Your task to perform on an android device: open chrome privacy settings Image 0: 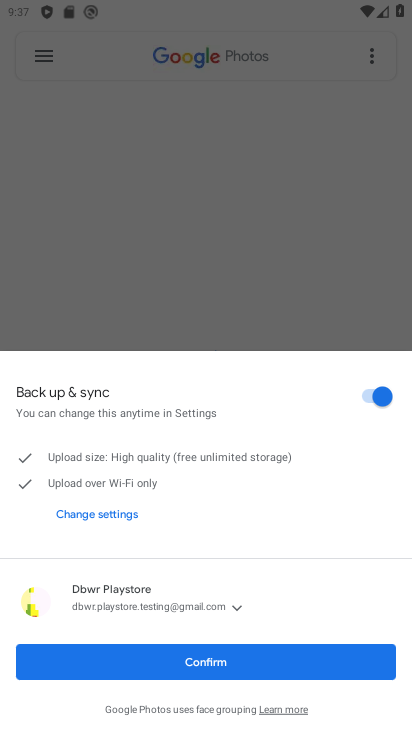
Step 0: click (269, 656)
Your task to perform on an android device: open chrome privacy settings Image 1: 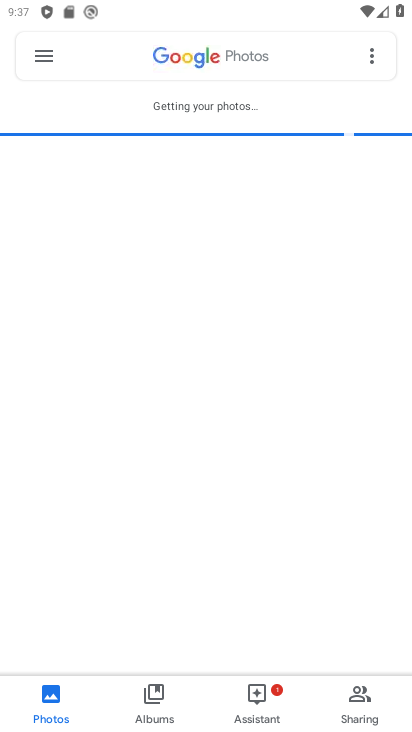
Step 1: press back button
Your task to perform on an android device: open chrome privacy settings Image 2: 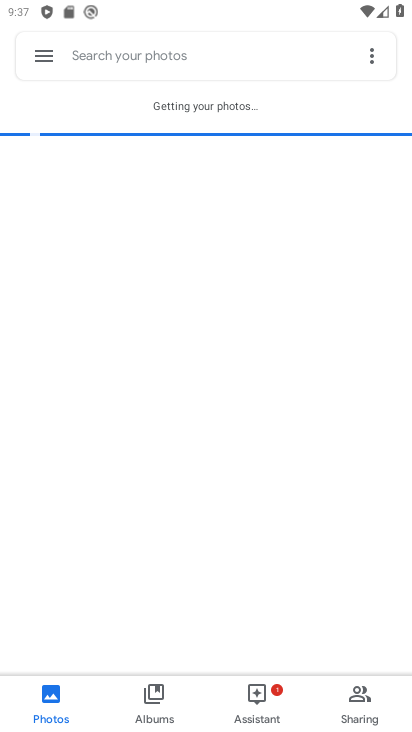
Step 2: press back button
Your task to perform on an android device: open chrome privacy settings Image 3: 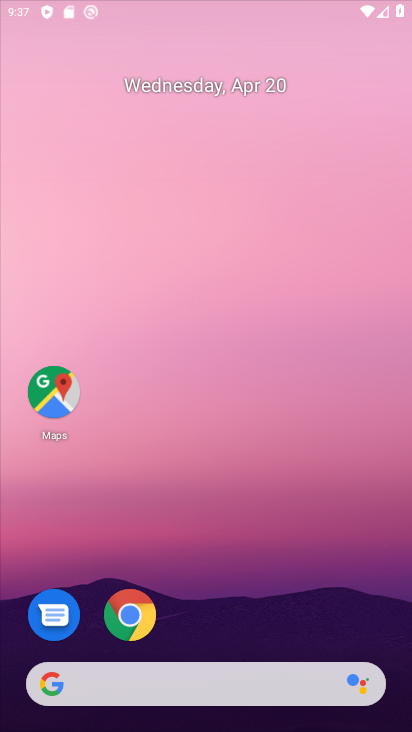
Step 3: press back button
Your task to perform on an android device: open chrome privacy settings Image 4: 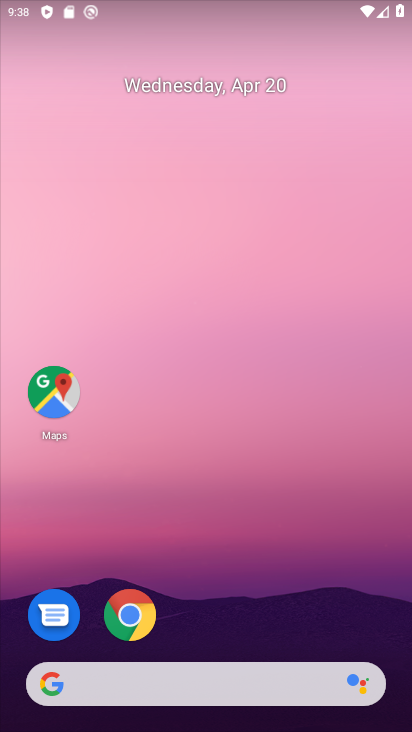
Step 4: drag from (231, 639) to (251, 121)
Your task to perform on an android device: open chrome privacy settings Image 5: 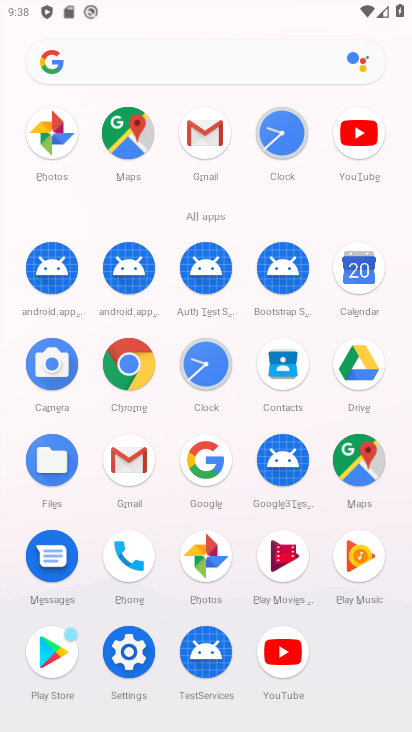
Step 5: click (146, 392)
Your task to perform on an android device: open chrome privacy settings Image 6: 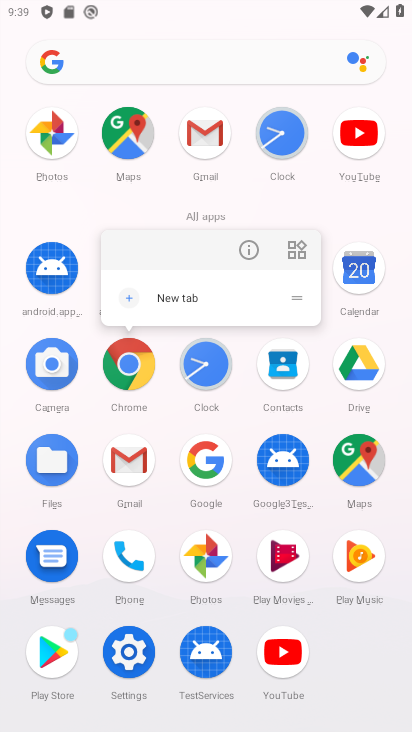
Step 6: click (121, 372)
Your task to perform on an android device: open chrome privacy settings Image 7: 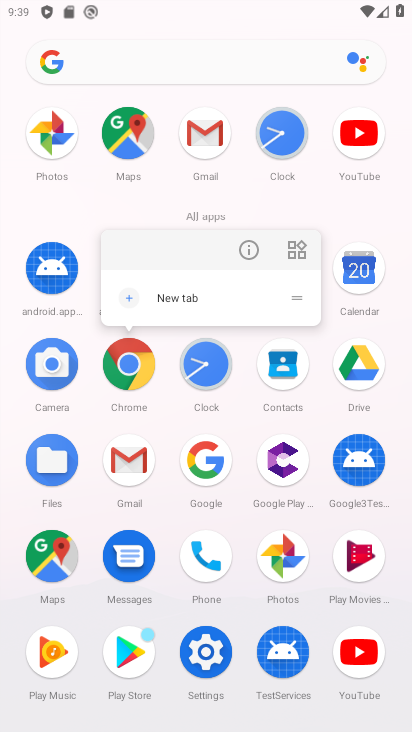
Step 7: click (135, 398)
Your task to perform on an android device: open chrome privacy settings Image 8: 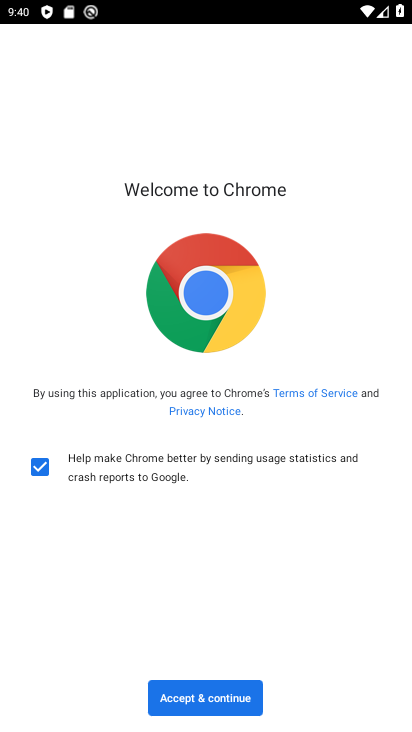
Step 8: click (201, 706)
Your task to perform on an android device: open chrome privacy settings Image 9: 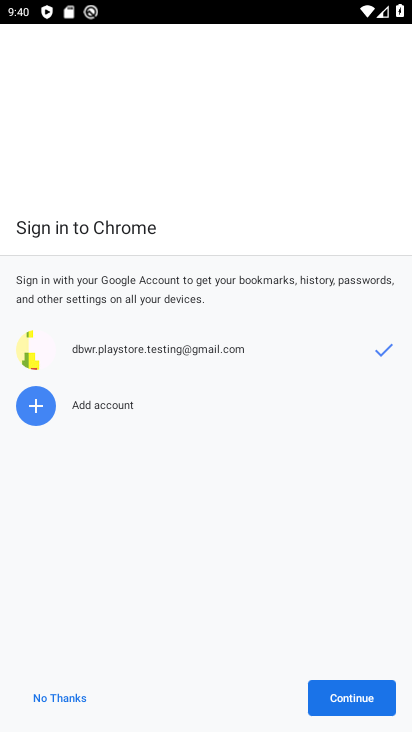
Step 9: click (321, 710)
Your task to perform on an android device: open chrome privacy settings Image 10: 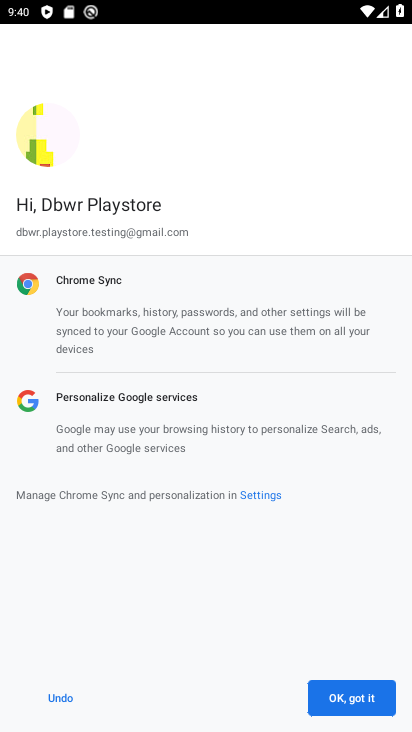
Step 10: click (321, 710)
Your task to perform on an android device: open chrome privacy settings Image 11: 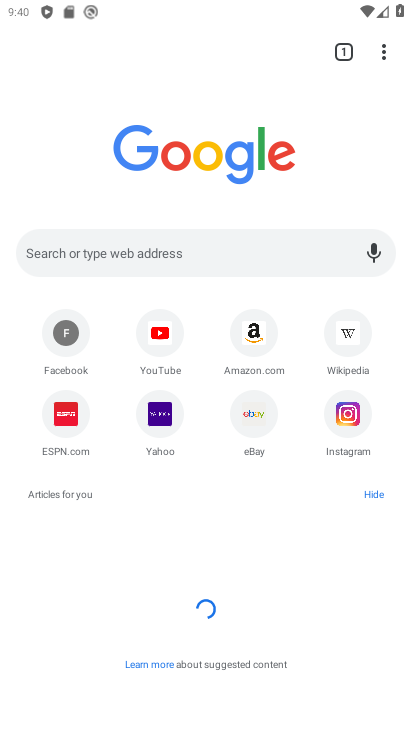
Step 11: click (386, 56)
Your task to perform on an android device: open chrome privacy settings Image 12: 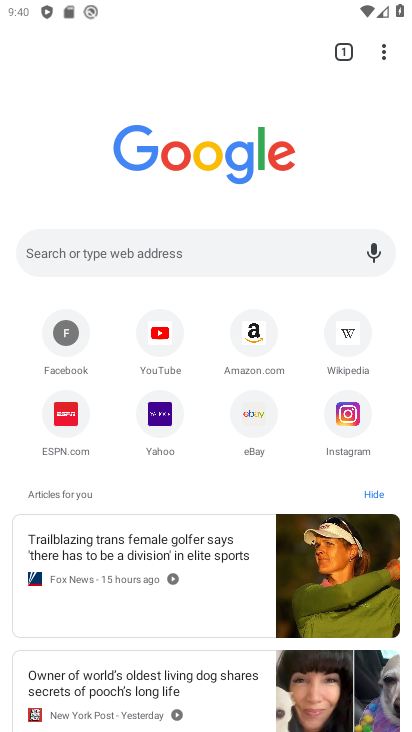
Step 12: click (378, 66)
Your task to perform on an android device: open chrome privacy settings Image 13: 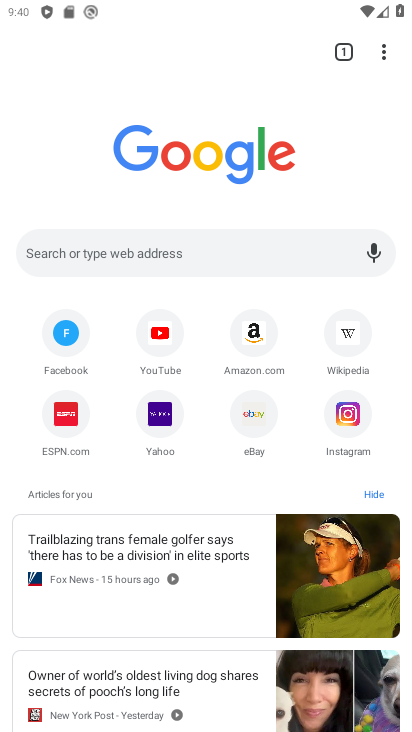
Step 13: click (384, 55)
Your task to perform on an android device: open chrome privacy settings Image 14: 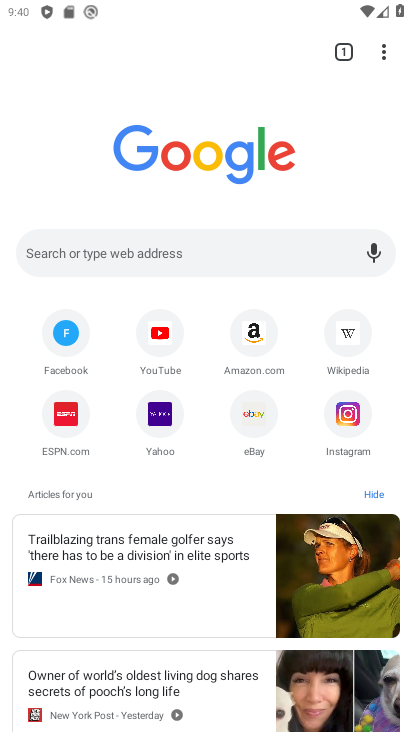
Step 14: click (382, 61)
Your task to perform on an android device: open chrome privacy settings Image 15: 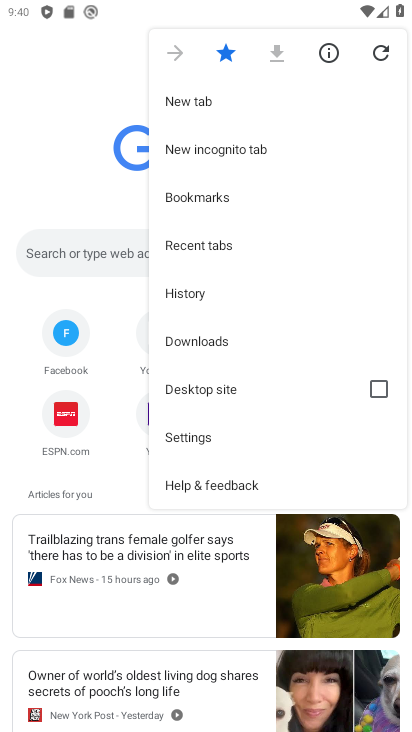
Step 15: click (234, 442)
Your task to perform on an android device: open chrome privacy settings Image 16: 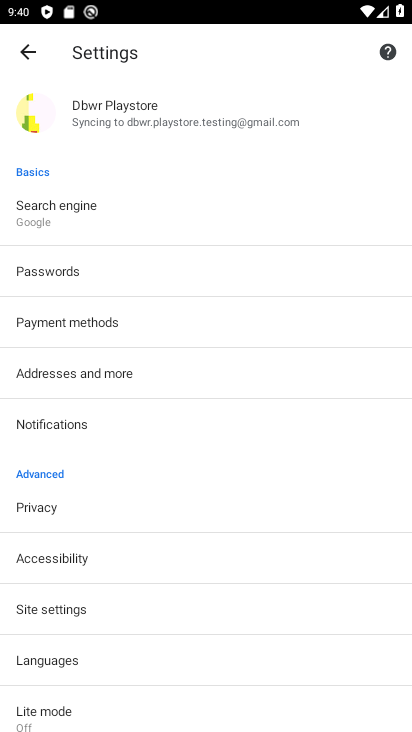
Step 16: click (106, 519)
Your task to perform on an android device: open chrome privacy settings Image 17: 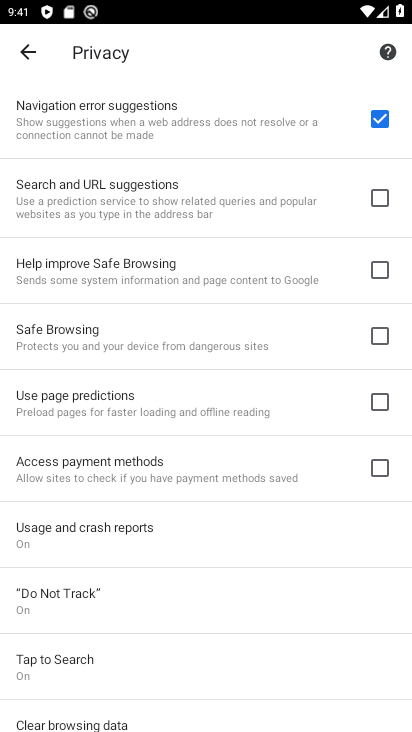
Step 17: task complete